Your task to perform on an android device: empty trash in the gmail app Image 0: 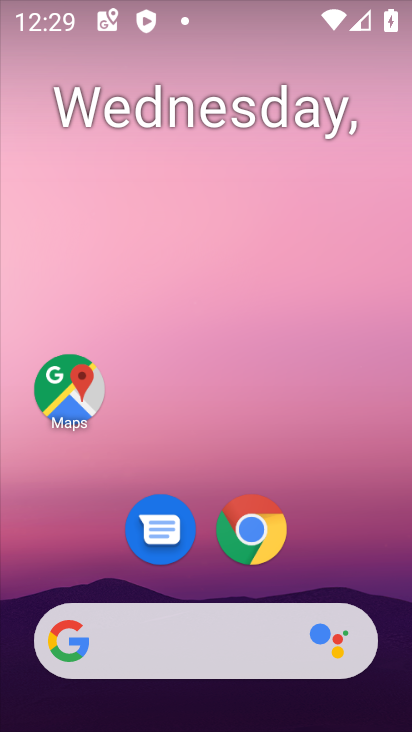
Step 0: drag from (402, 622) to (332, 192)
Your task to perform on an android device: empty trash in the gmail app Image 1: 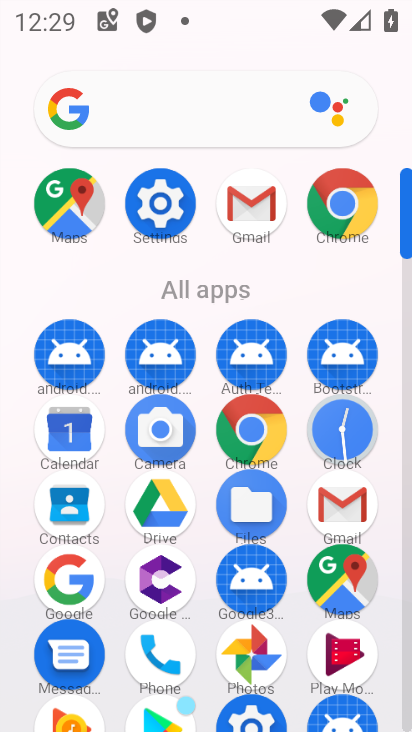
Step 1: click (404, 683)
Your task to perform on an android device: empty trash in the gmail app Image 2: 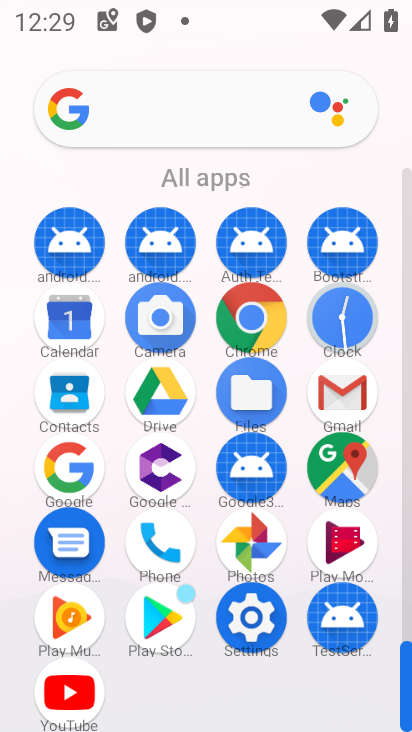
Step 2: click (340, 388)
Your task to perform on an android device: empty trash in the gmail app Image 3: 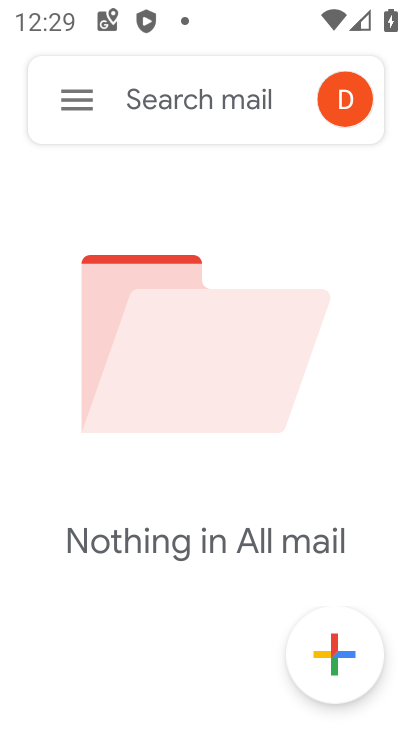
Step 3: click (79, 102)
Your task to perform on an android device: empty trash in the gmail app Image 4: 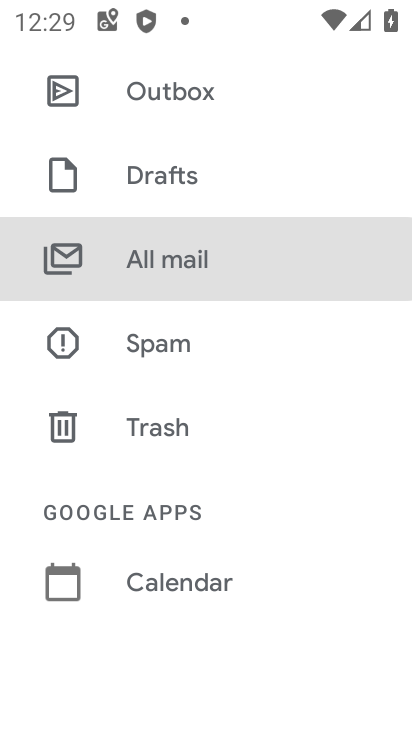
Step 4: click (162, 429)
Your task to perform on an android device: empty trash in the gmail app Image 5: 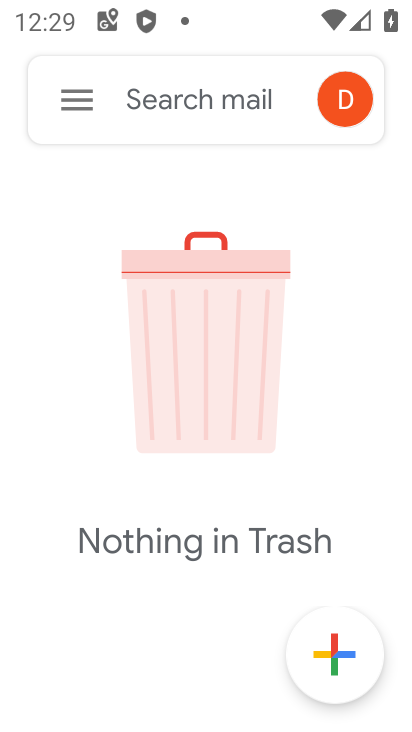
Step 5: task complete